Your task to perform on an android device: Go to Maps Image 0: 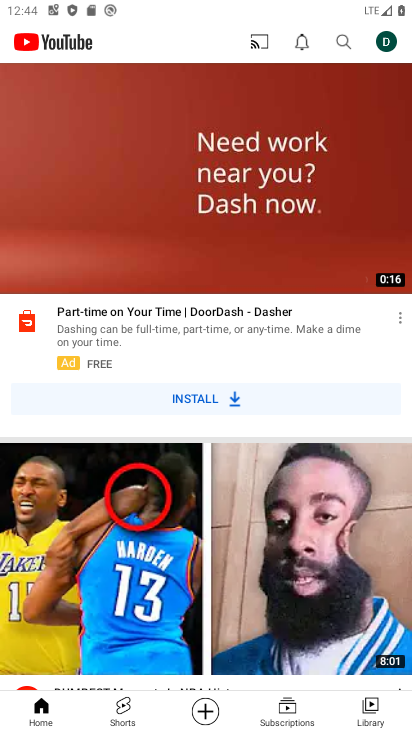
Step 0: press home button
Your task to perform on an android device: Go to Maps Image 1: 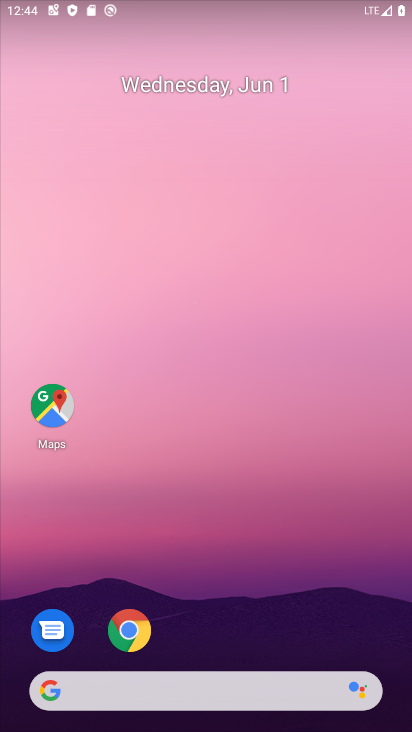
Step 1: click (45, 399)
Your task to perform on an android device: Go to Maps Image 2: 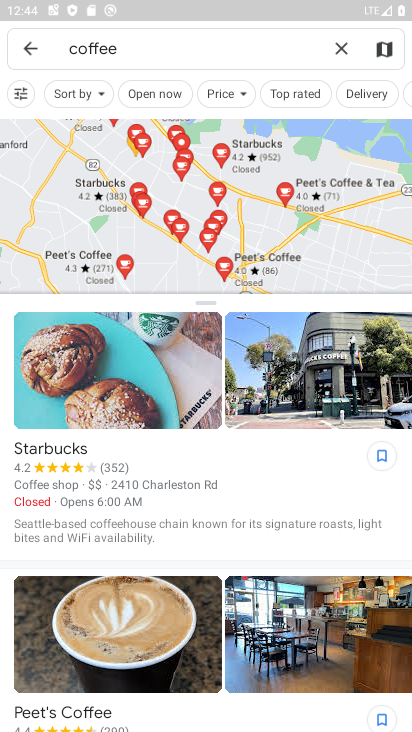
Step 2: click (343, 46)
Your task to perform on an android device: Go to Maps Image 3: 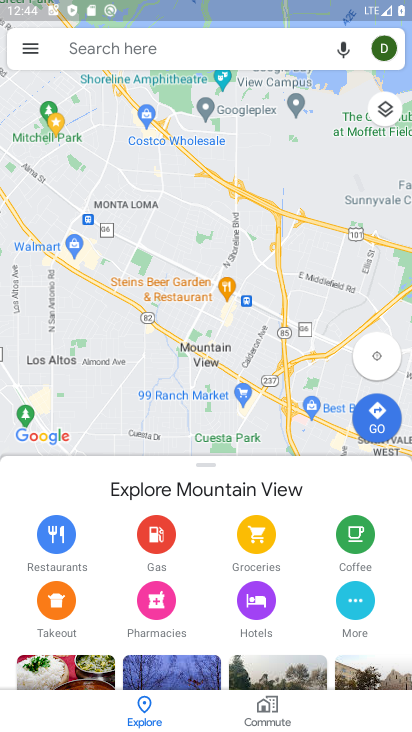
Step 3: task complete